Your task to perform on an android device: Search for "macbook pro 13 inch" on newegg, select the first entry, and add it to the cart. Image 0: 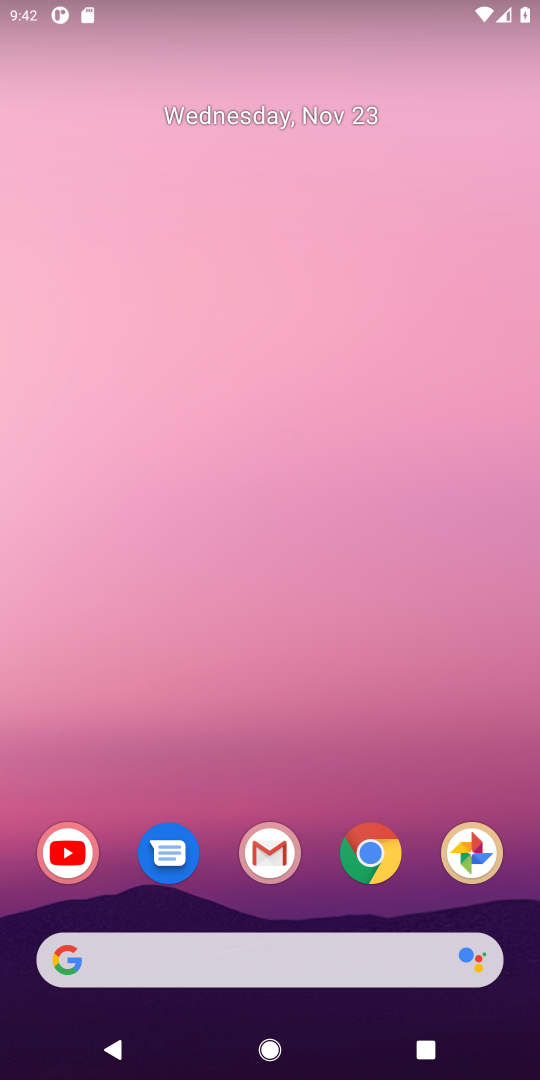
Step 0: click (365, 861)
Your task to perform on an android device: Search for "macbook pro 13 inch" on newegg, select the first entry, and add it to the cart. Image 1: 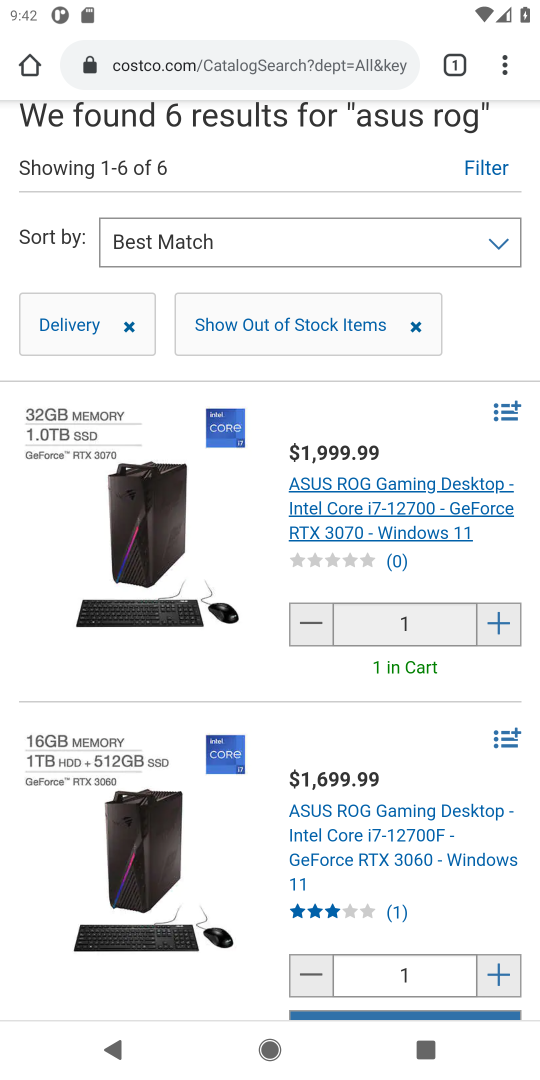
Step 1: click (202, 67)
Your task to perform on an android device: Search for "macbook pro 13 inch" on newegg, select the first entry, and add it to the cart. Image 2: 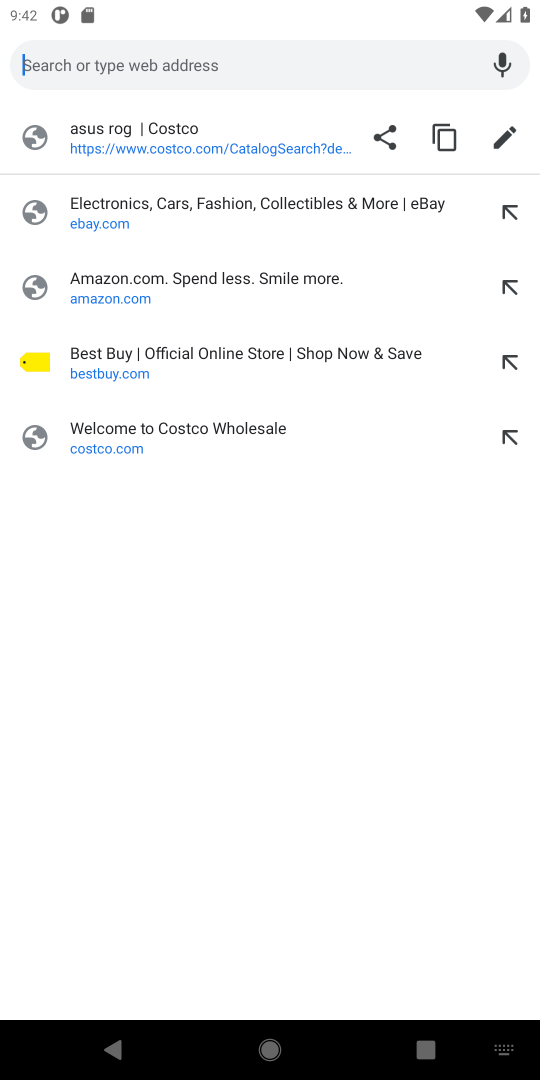
Step 2: type "newegg.com"
Your task to perform on an android device: Search for "macbook pro 13 inch" on newegg, select the first entry, and add it to the cart. Image 3: 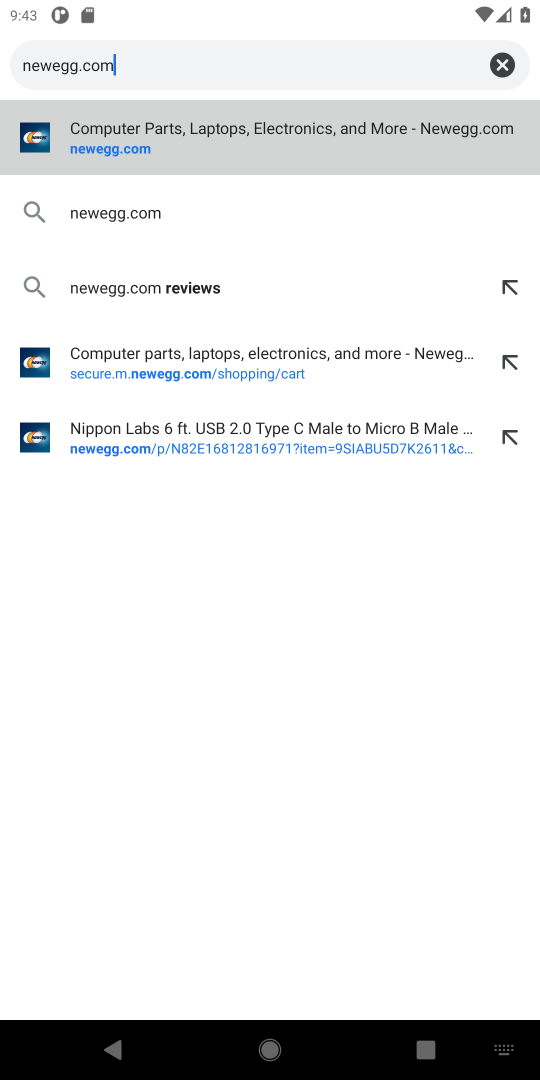
Step 3: click (92, 148)
Your task to perform on an android device: Search for "macbook pro 13 inch" on newegg, select the first entry, and add it to the cart. Image 4: 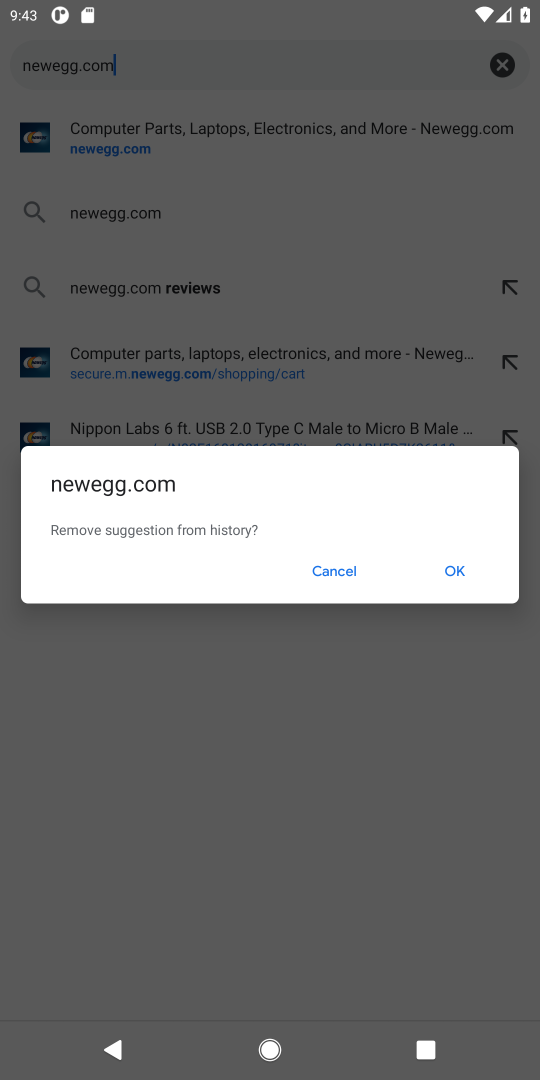
Step 4: click (333, 579)
Your task to perform on an android device: Search for "macbook pro 13 inch" on newegg, select the first entry, and add it to the cart. Image 5: 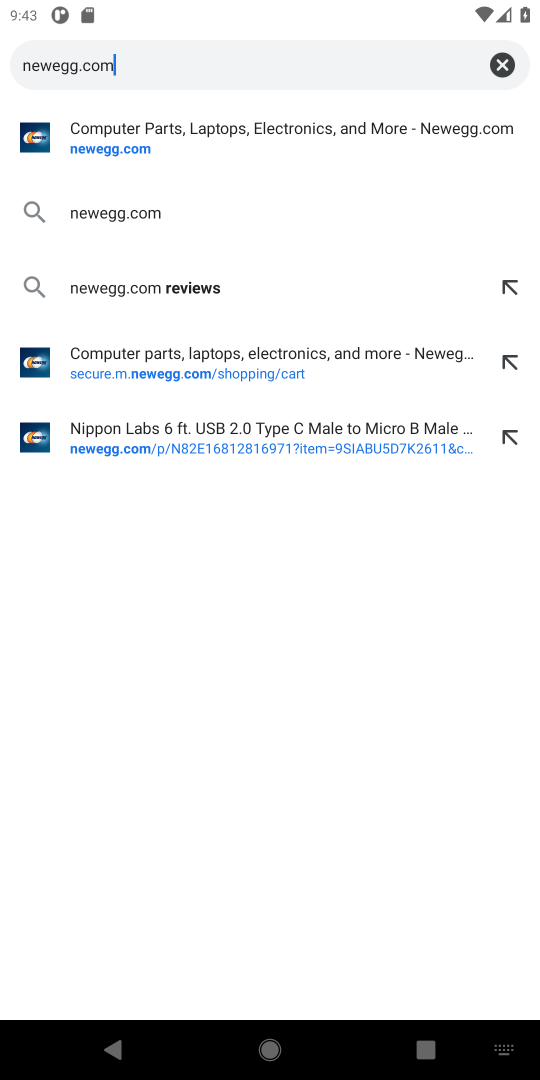
Step 5: click (86, 146)
Your task to perform on an android device: Search for "macbook pro 13 inch" on newegg, select the first entry, and add it to the cart. Image 6: 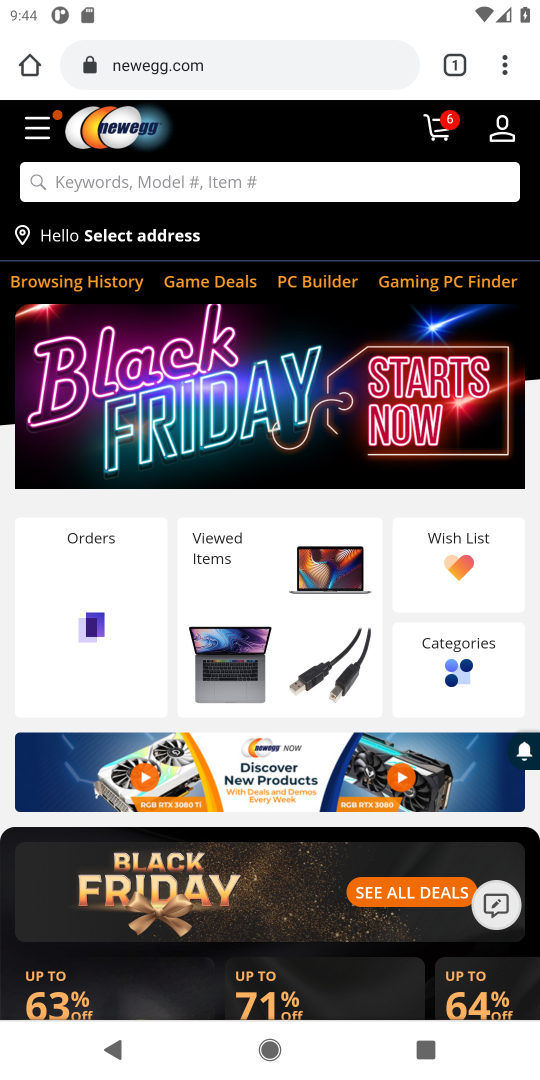
Step 6: click (189, 191)
Your task to perform on an android device: Search for "macbook pro 13 inch" on newegg, select the first entry, and add it to the cart. Image 7: 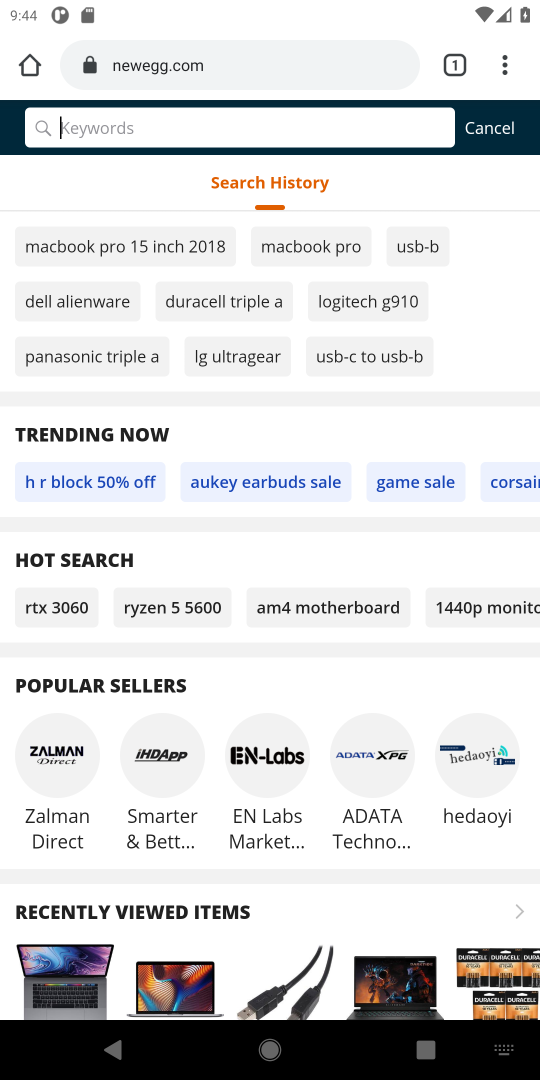
Step 7: type "macbook pro 13 inch"
Your task to perform on an android device: Search for "macbook pro 13 inch" on newegg, select the first entry, and add it to the cart. Image 8: 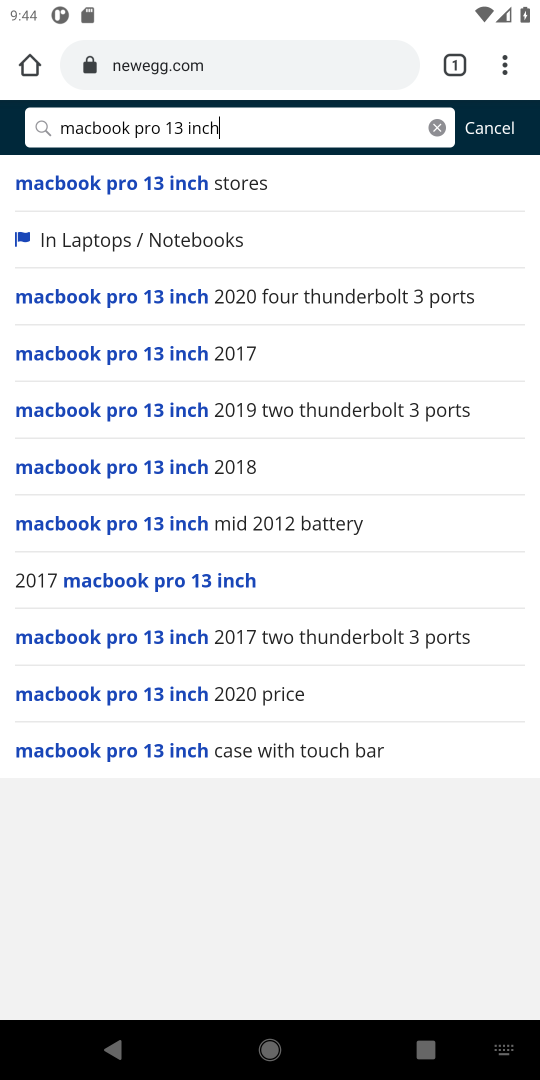
Step 8: click (102, 357)
Your task to perform on an android device: Search for "macbook pro 13 inch" on newegg, select the first entry, and add it to the cart. Image 9: 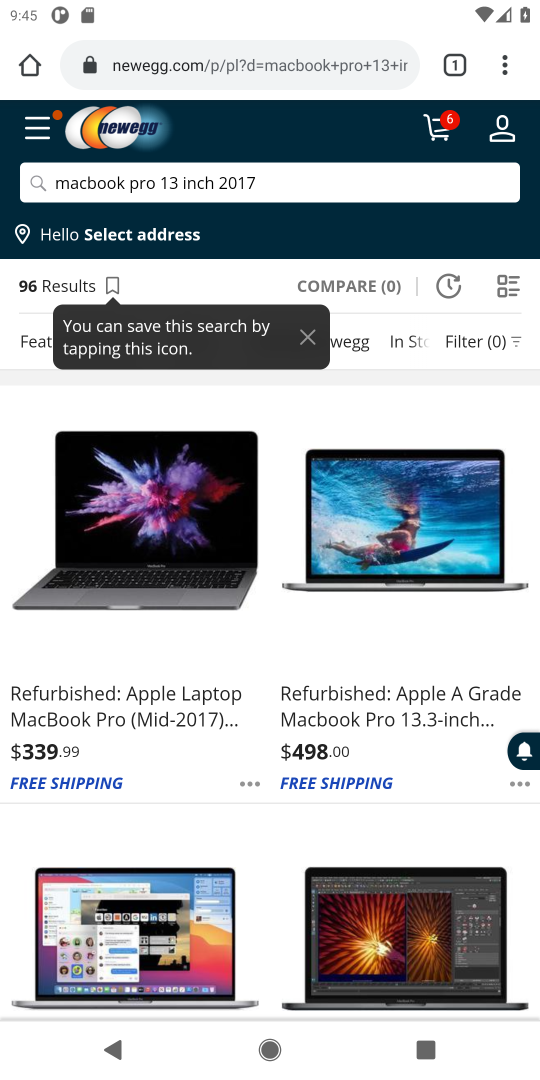
Step 9: click (136, 593)
Your task to perform on an android device: Search for "macbook pro 13 inch" on newegg, select the first entry, and add it to the cart. Image 10: 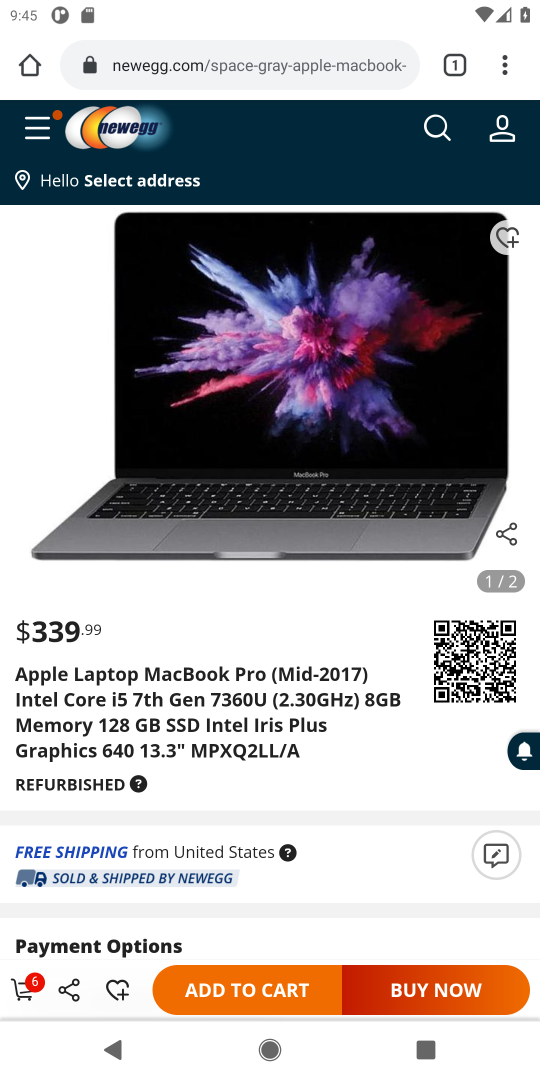
Step 10: click (234, 994)
Your task to perform on an android device: Search for "macbook pro 13 inch" on newegg, select the first entry, and add it to the cart. Image 11: 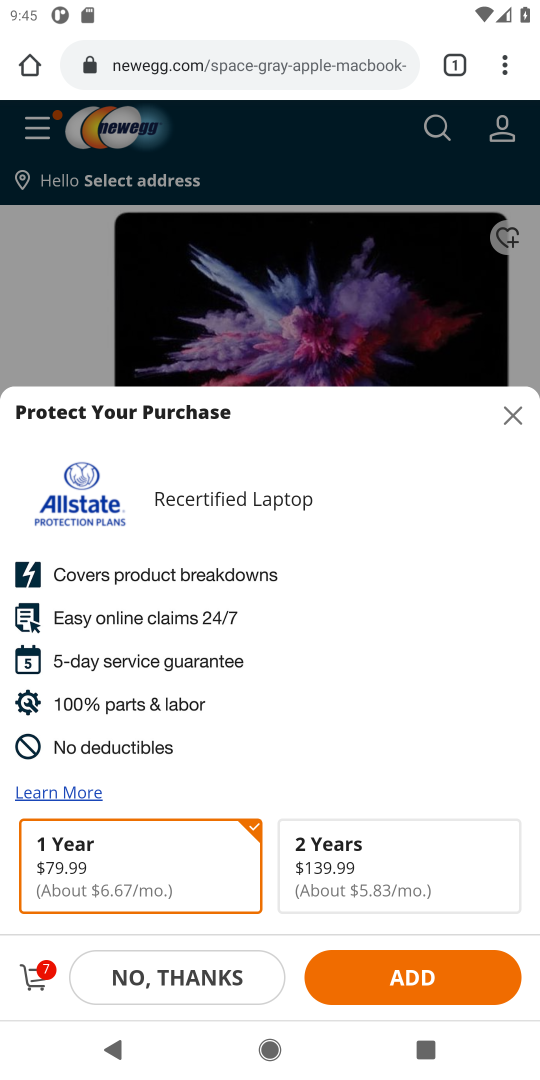
Step 11: task complete